Your task to perform on an android device: Open Reddit.com Image 0: 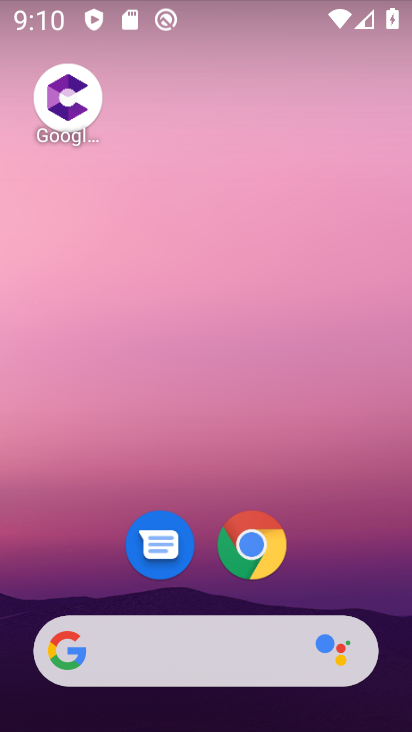
Step 0: press home button
Your task to perform on an android device: Open Reddit.com Image 1: 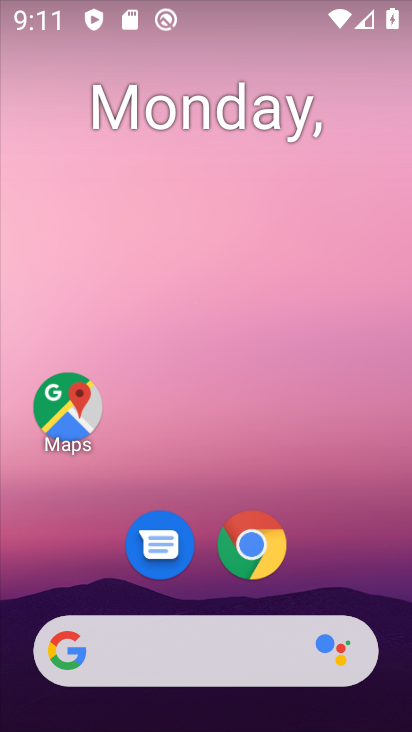
Step 1: click (252, 525)
Your task to perform on an android device: Open Reddit.com Image 2: 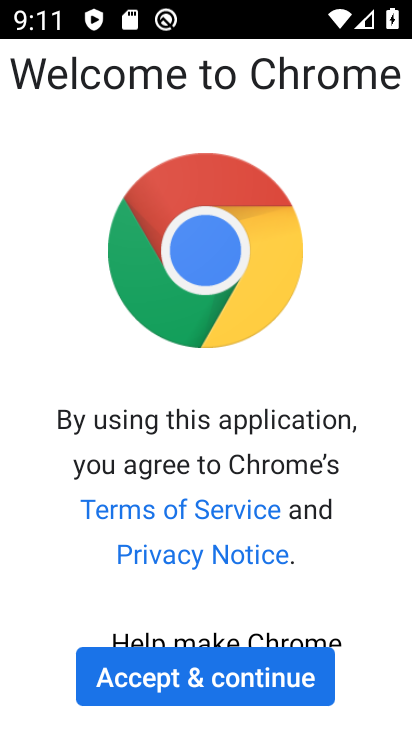
Step 2: click (246, 675)
Your task to perform on an android device: Open Reddit.com Image 3: 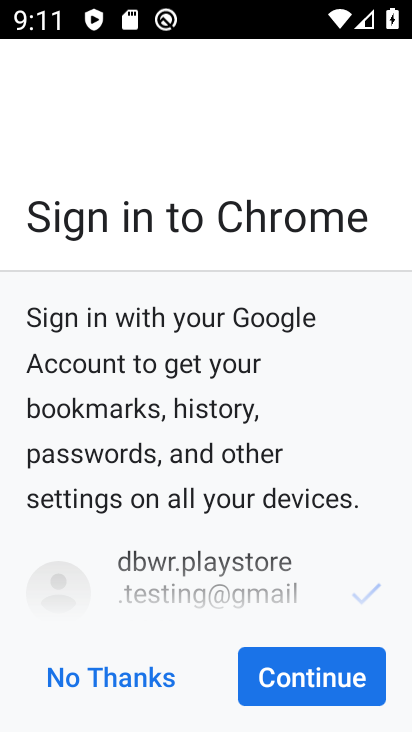
Step 3: click (125, 666)
Your task to perform on an android device: Open Reddit.com Image 4: 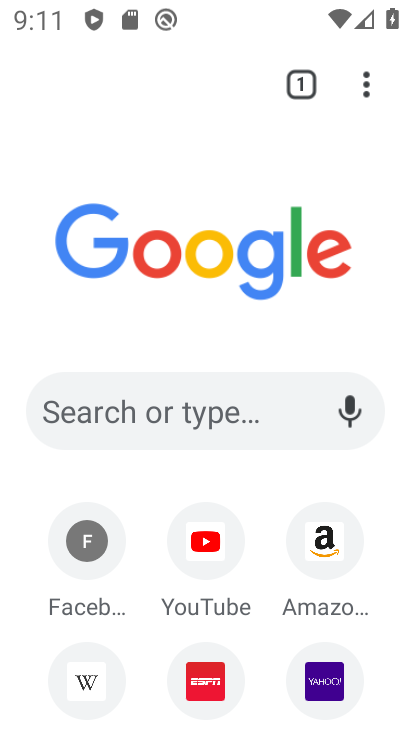
Step 4: click (187, 396)
Your task to perform on an android device: Open Reddit.com Image 5: 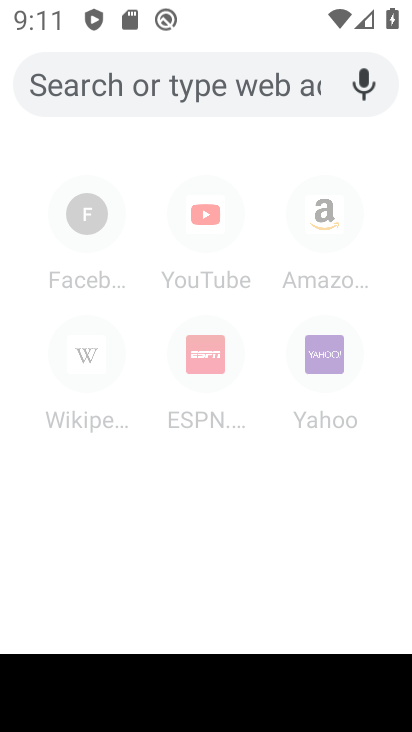
Step 5: type "Reddit.com"
Your task to perform on an android device: Open Reddit.com Image 6: 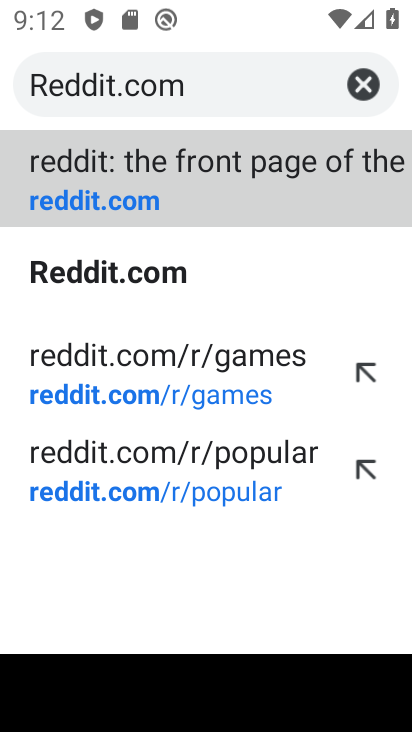
Step 6: click (98, 172)
Your task to perform on an android device: Open Reddit.com Image 7: 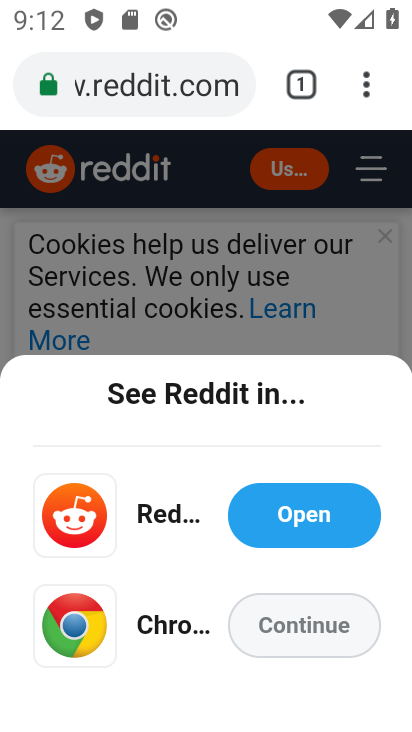
Step 7: task complete